Your task to perform on an android device: Open Wikipedia Image 0: 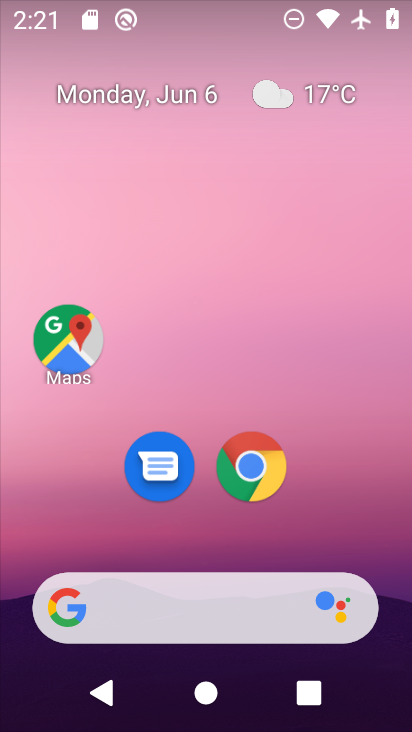
Step 0: click (243, 612)
Your task to perform on an android device: Open Wikipedia Image 1: 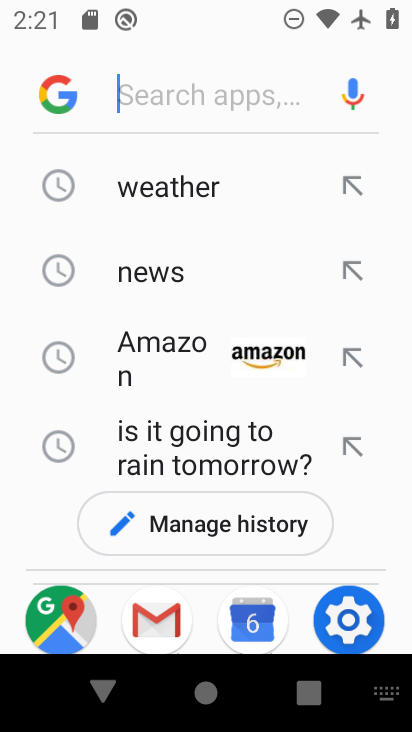
Step 1: type "Wikipedia"
Your task to perform on an android device: Open Wikipedia Image 2: 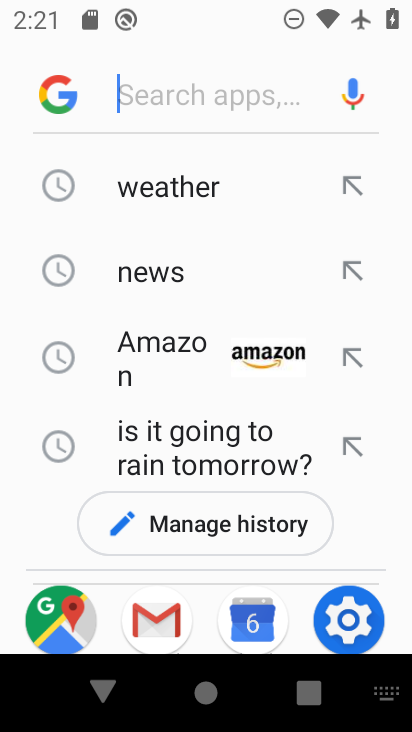
Step 2: click (199, 97)
Your task to perform on an android device: Open Wikipedia Image 3: 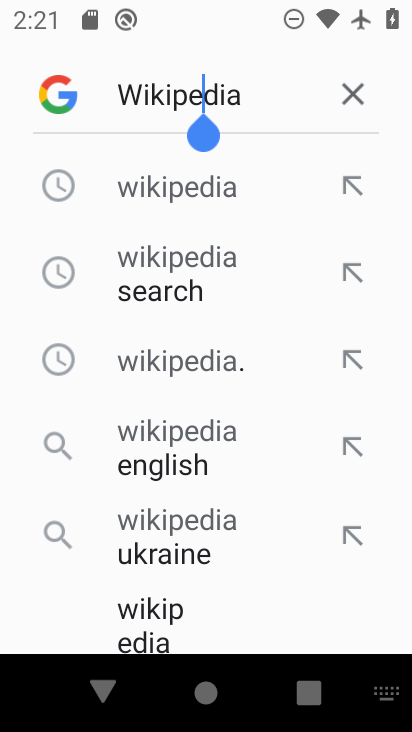
Step 3: click (170, 187)
Your task to perform on an android device: Open Wikipedia Image 4: 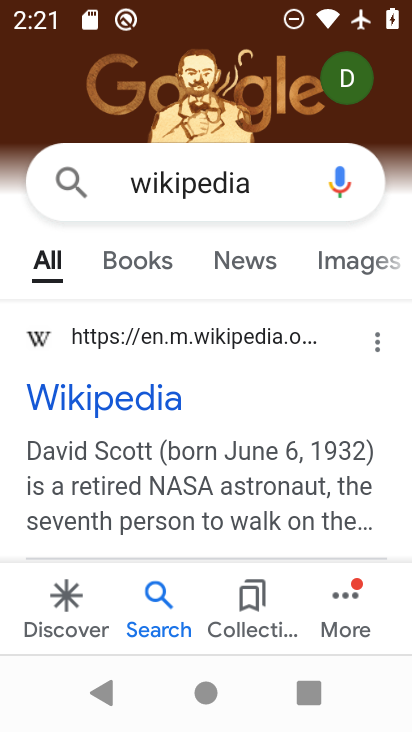
Step 4: click (108, 403)
Your task to perform on an android device: Open Wikipedia Image 5: 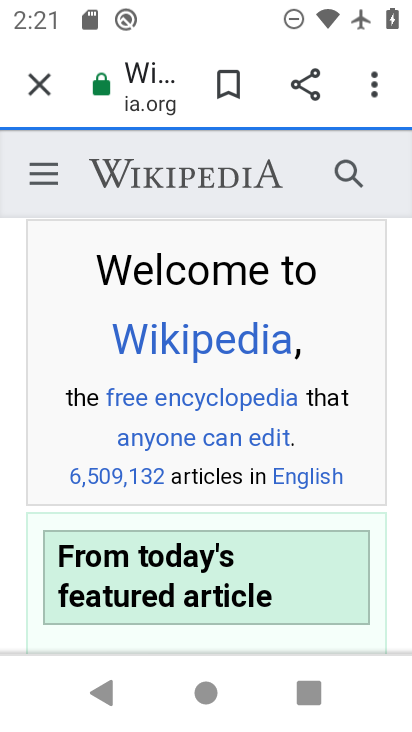
Step 5: task complete